Your task to perform on an android device: change keyboard looks Image 0: 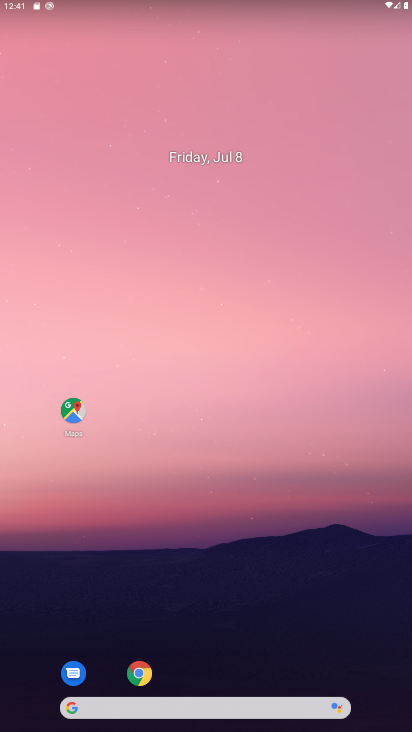
Step 0: drag from (206, 304) to (176, 98)
Your task to perform on an android device: change keyboard looks Image 1: 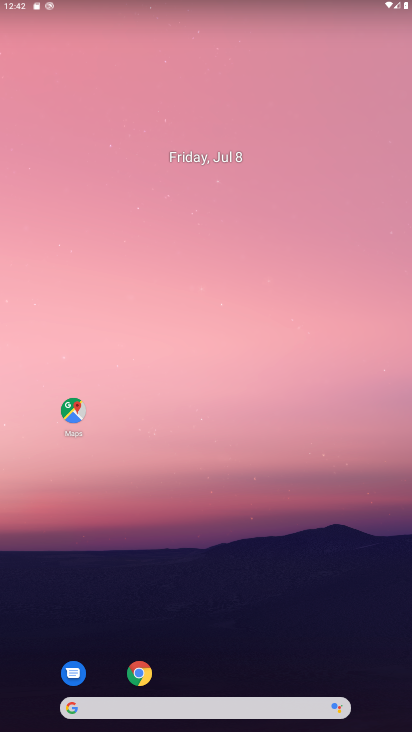
Step 1: drag from (259, 466) to (230, 104)
Your task to perform on an android device: change keyboard looks Image 2: 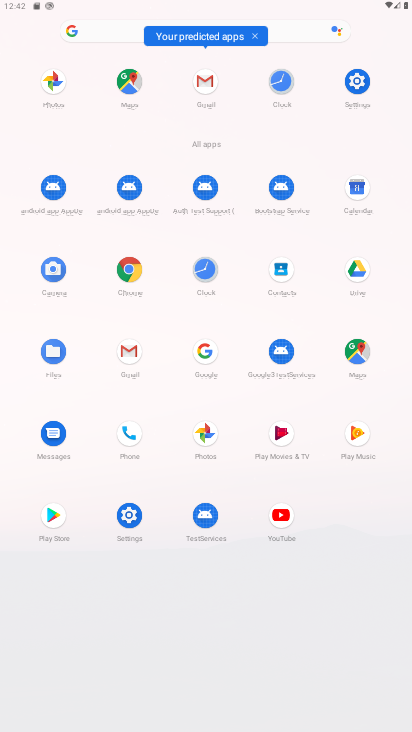
Step 2: click (360, 79)
Your task to perform on an android device: change keyboard looks Image 3: 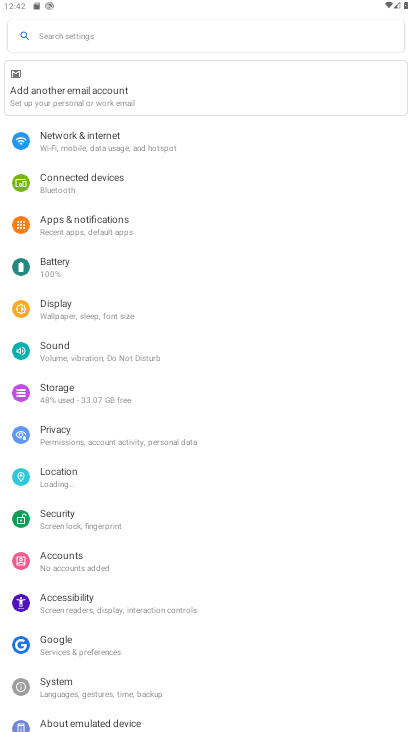
Step 3: drag from (268, 581) to (176, 117)
Your task to perform on an android device: change keyboard looks Image 4: 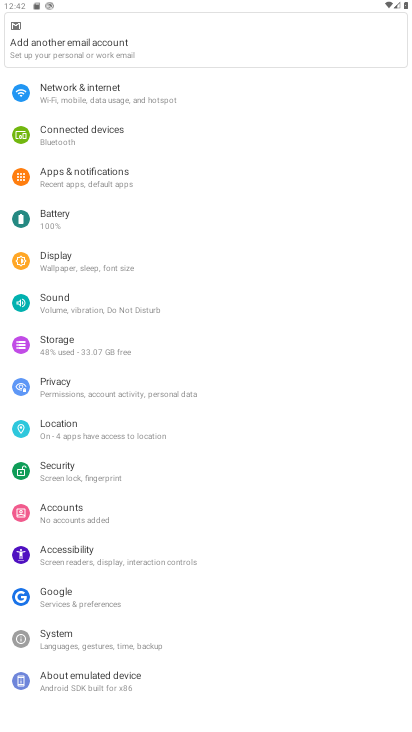
Step 4: click (94, 648)
Your task to perform on an android device: change keyboard looks Image 5: 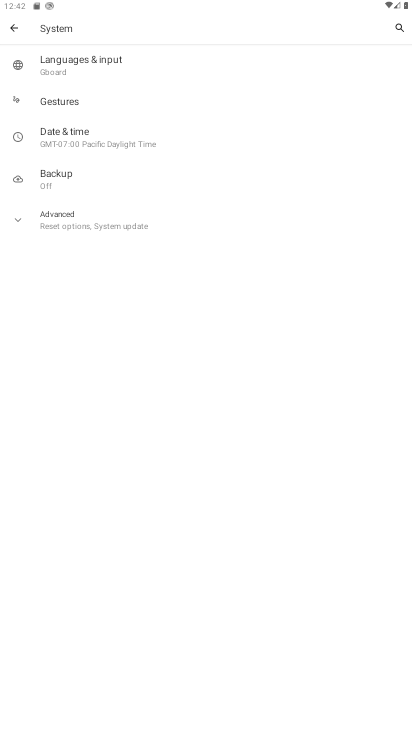
Step 5: click (88, 65)
Your task to perform on an android device: change keyboard looks Image 6: 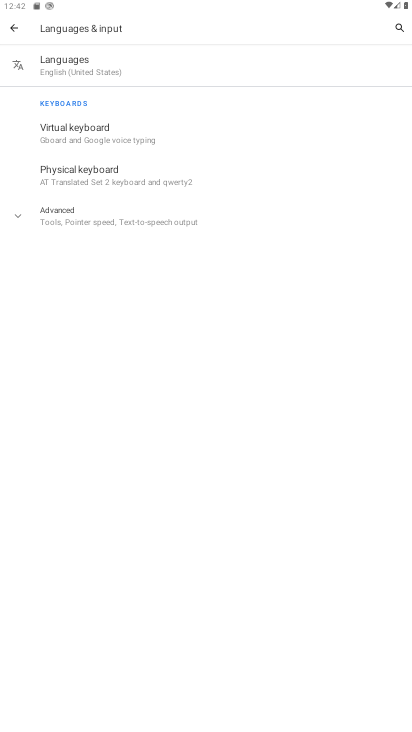
Step 6: click (95, 137)
Your task to perform on an android device: change keyboard looks Image 7: 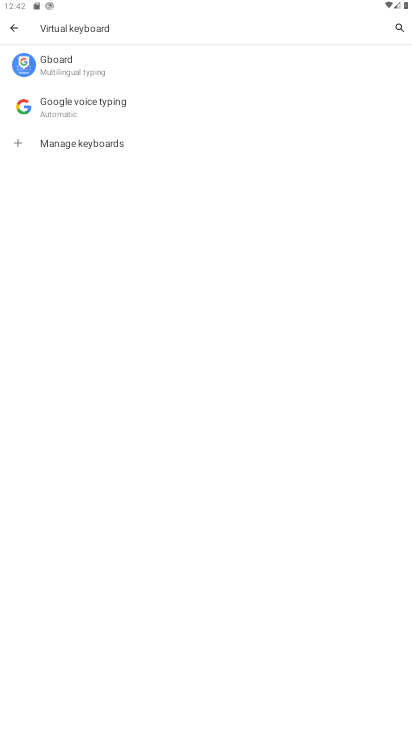
Step 7: click (89, 62)
Your task to perform on an android device: change keyboard looks Image 8: 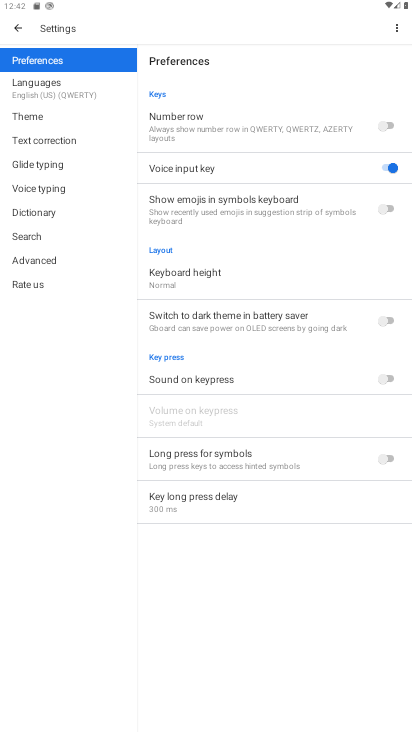
Step 8: click (50, 124)
Your task to perform on an android device: change keyboard looks Image 9: 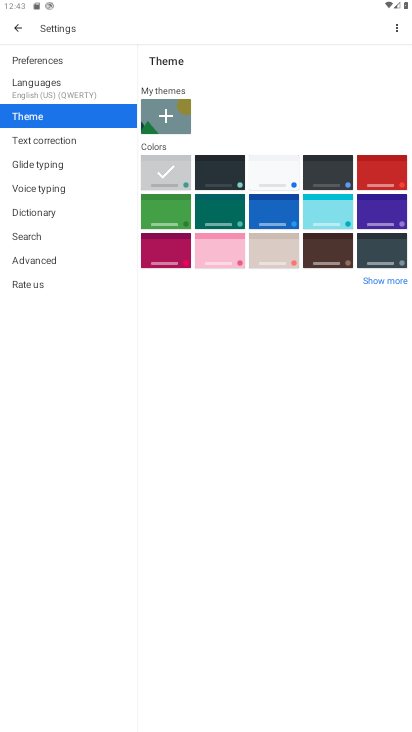
Step 9: click (215, 171)
Your task to perform on an android device: change keyboard looks Image 10: 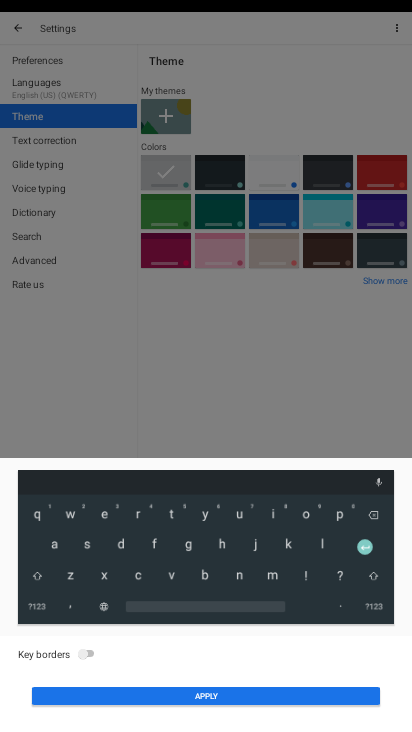
Step 10: click (290, 694)
Your task to perform on an android device: change keyboard looks Image 11: 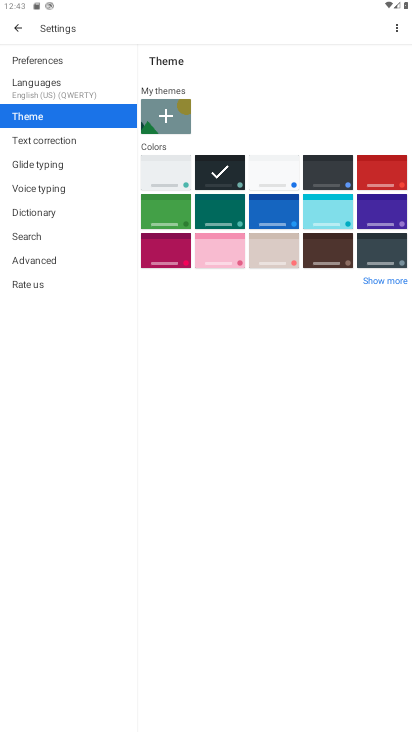
Step 11: task complete